Your task to perform on an android device: turn on showing notifications on the lock screen Image 0: 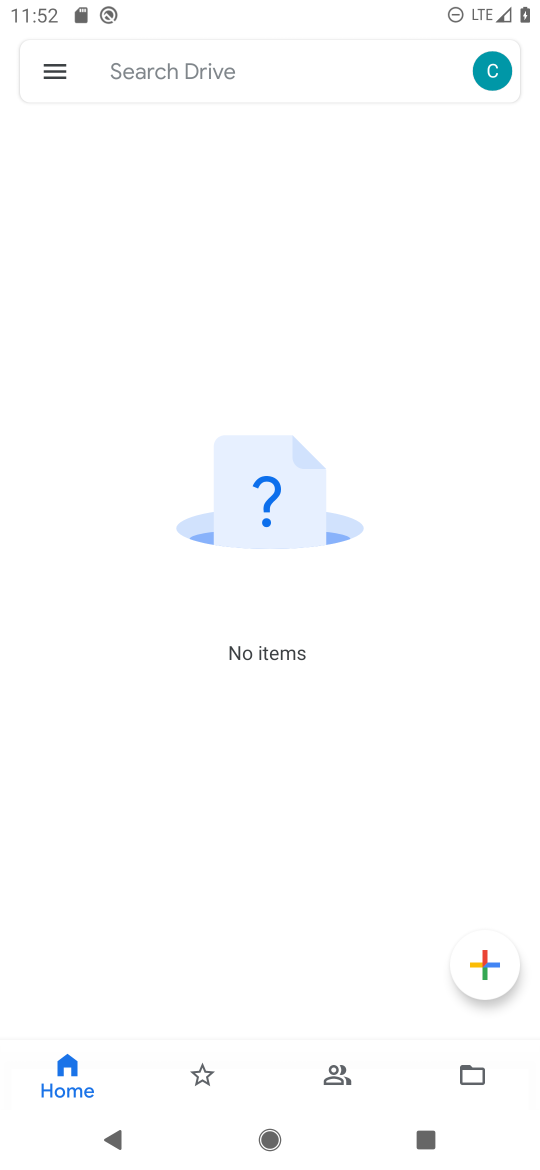
Step 0: press home button
Your task to perform on an android device: turn on showing notifications on the lock screen Image 1: 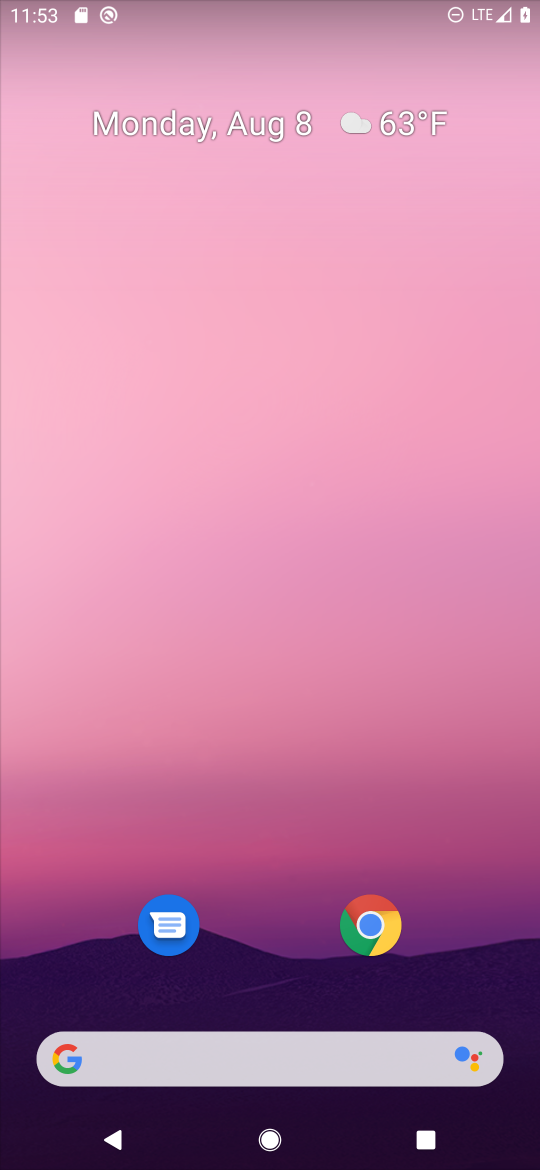
Step 1: drag from (269, 945) to (398, 63)
Your task to perform on an android device: turn on showing notifications on the lock screen Image 2: 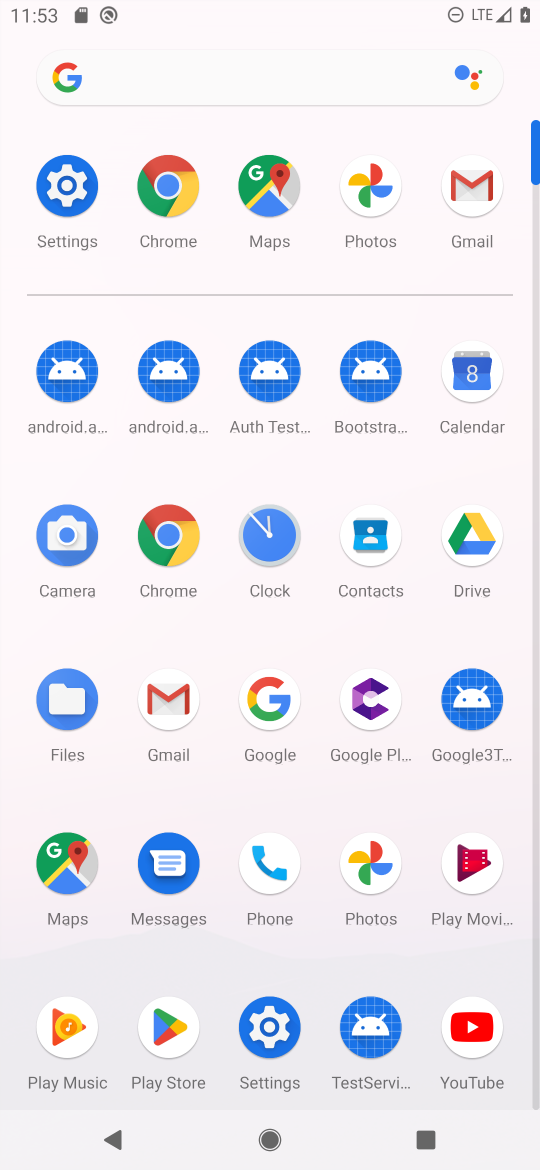
Step 2: click (275, 1022)
Your task to perform on an android device: turn on showing notifications on the lock screen Image 3: 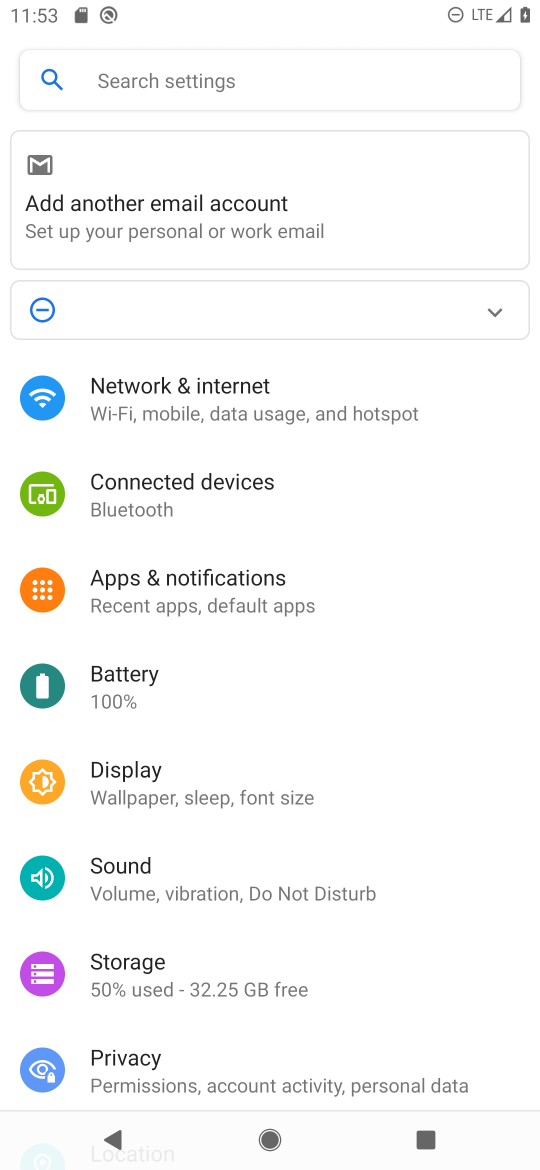
Step 3: click (202, 593)
Your task to perform on an android device: turn on showing notifications on the lock screen Image 4: 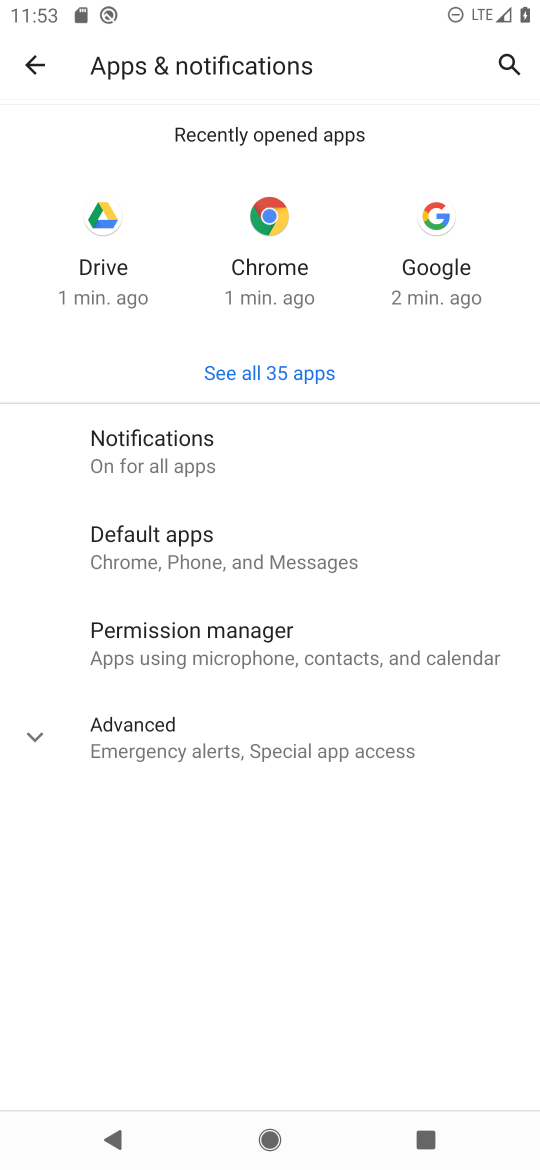
Step 4: click (221, 480)
Your task to perform on an android device: turn on showing notifications on the lock screen Image 5: 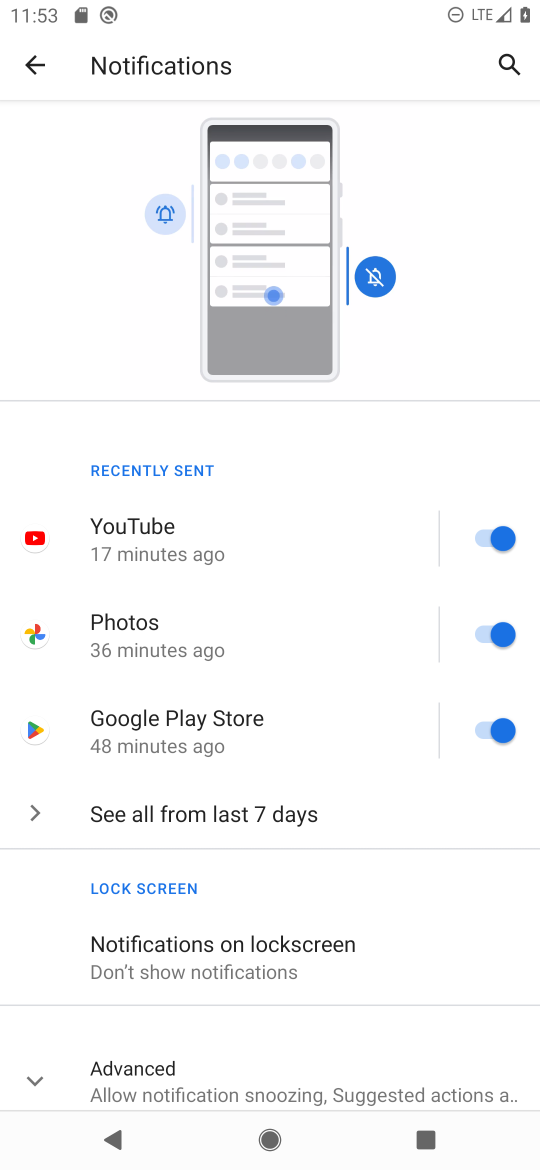
Step 5: drag from (286, 1018) to (346, 224)
Your task to perform on an android device: turn on showing notifications on the lock screen Image 6: 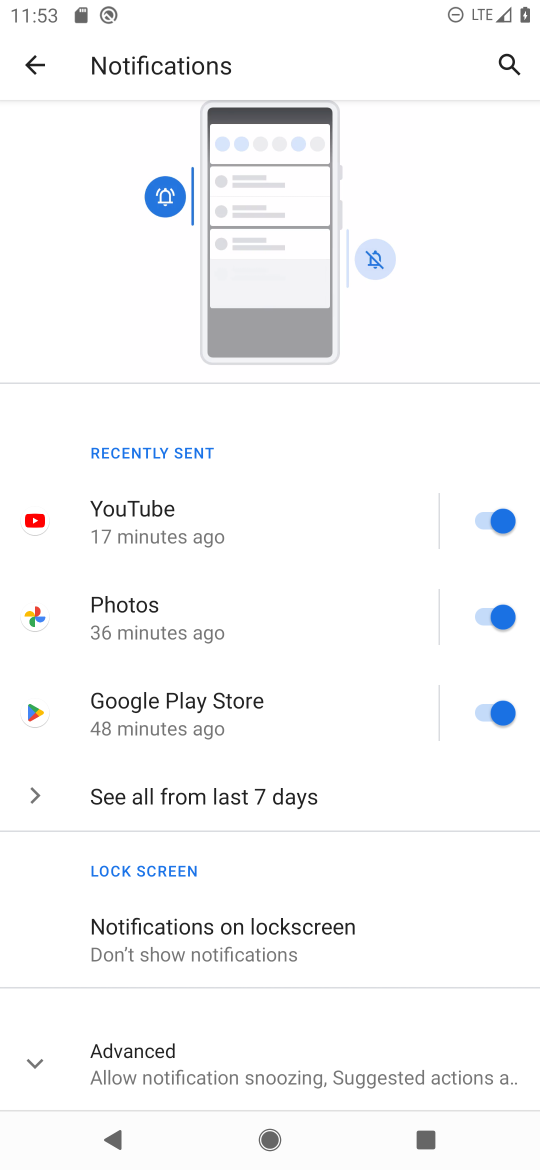
Step 6: click (235, 964)
Your task to perform on an android device: turn on showing notifications on the lock screen Image 7: 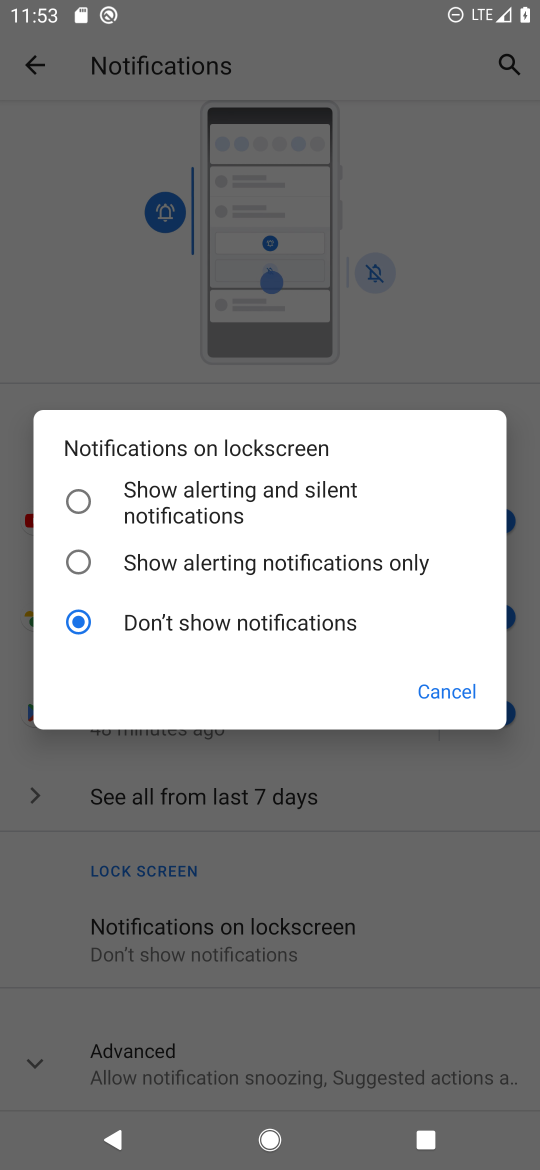
Step 7: click (336, 548)
Your task to perform on an android device: turn on showing notifications on the lock screen Image 8: 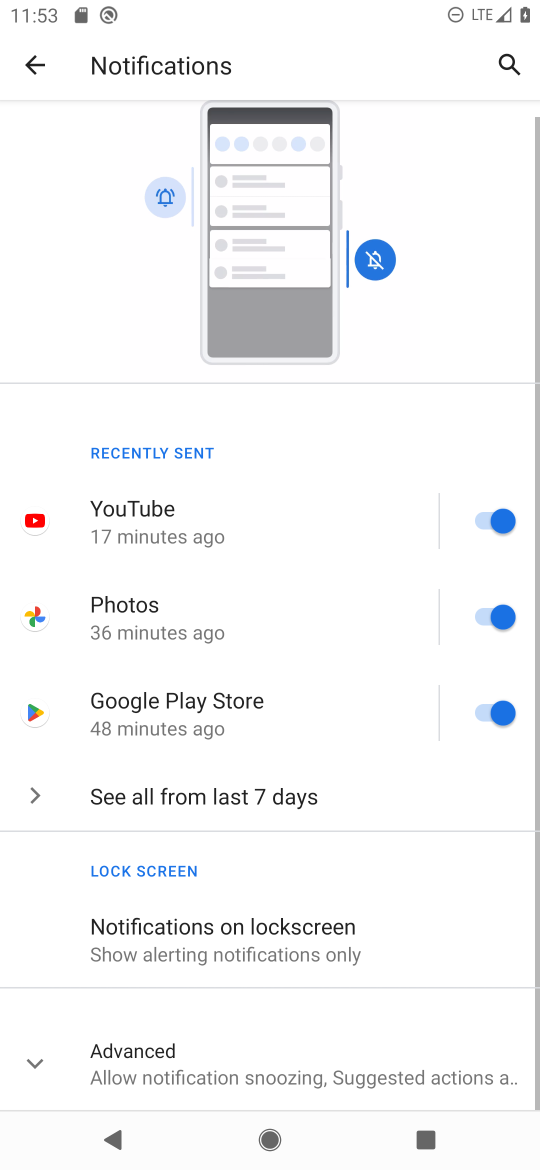
Step 8: task complete